Your task to perform on an android device: When is my next meeting? Image 0: 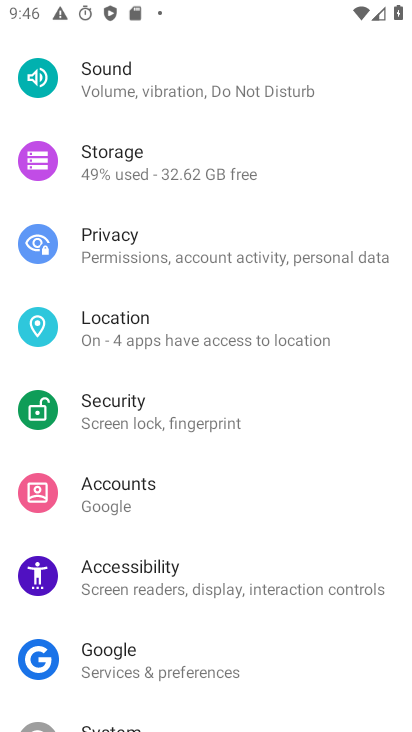
Step 0: press home button
Your task to perform on an android device: When is my next meeting? Image 1: 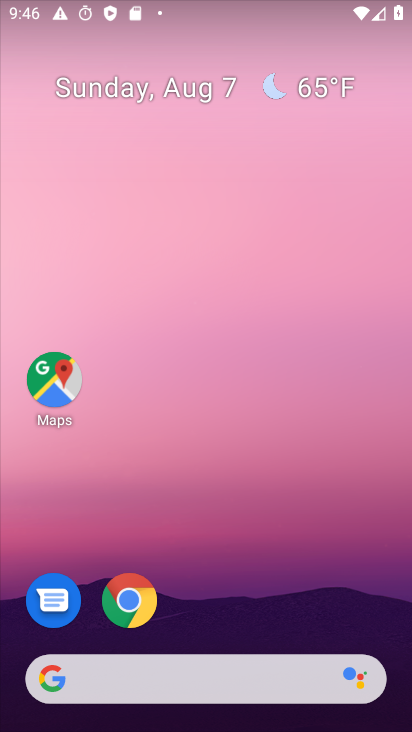
Step 1: drag from (241, 598) to (296, 168)
Your task to perform on an android device: When is my next meeting? Image 2: 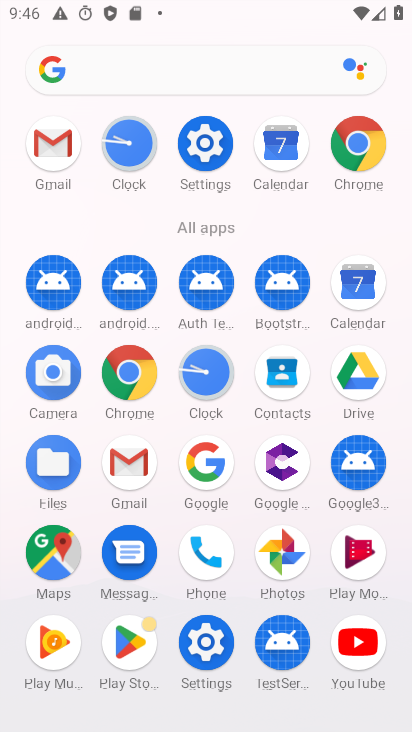
Step 2: drag from (198, 557) to (222, 158)
Your task to perform on an android device: When is my next meeting? Image 3: 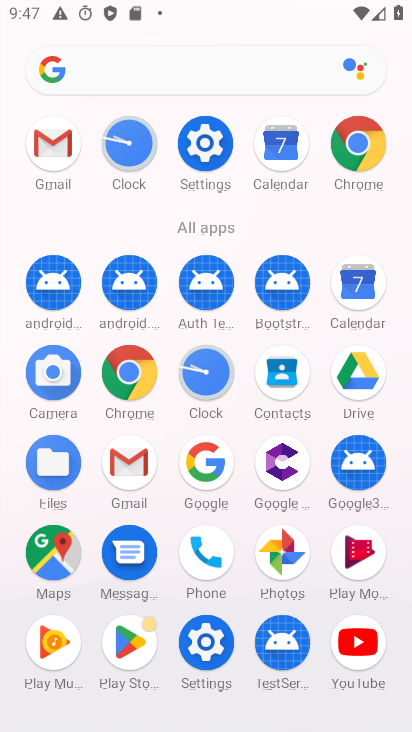
Step 3: click (358, 301)
Your task to perform on an android device: When is my next meeting? Image 4: 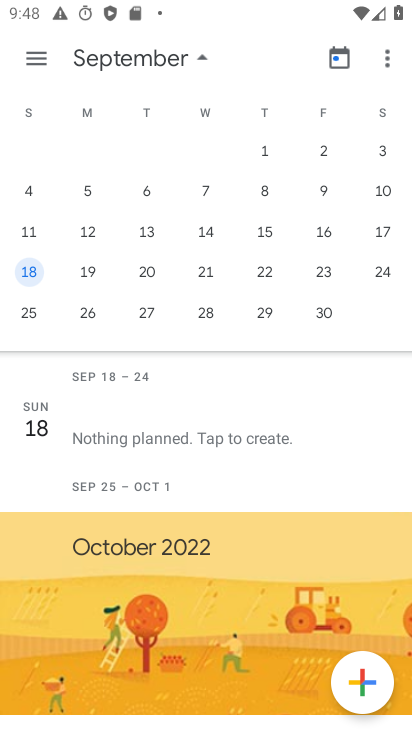
Step 4: click (40, 61)
Your task to perform on an android device: When is my next meeting? Image 5: 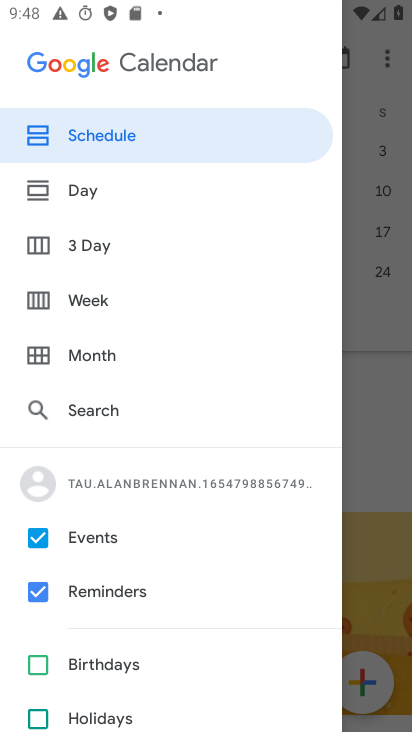
Step 5: click (381, 320)
Your task to perform on an android device: When is my next meeting? Image 6: 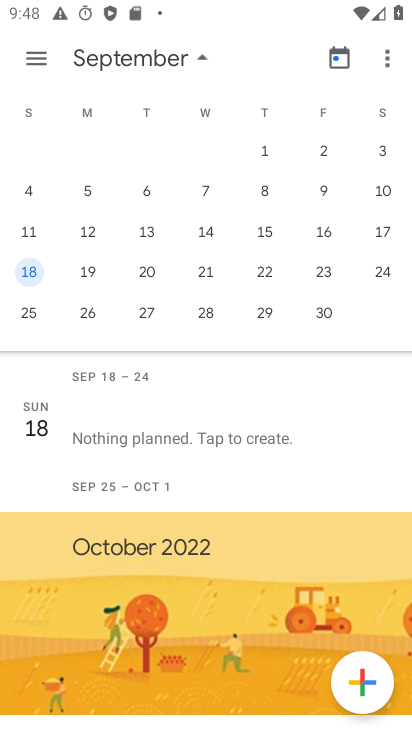
Step 6: drag from (92, 259) to (410, 325)
Your task to perform on an android device: When is my next meeting? Image 7: 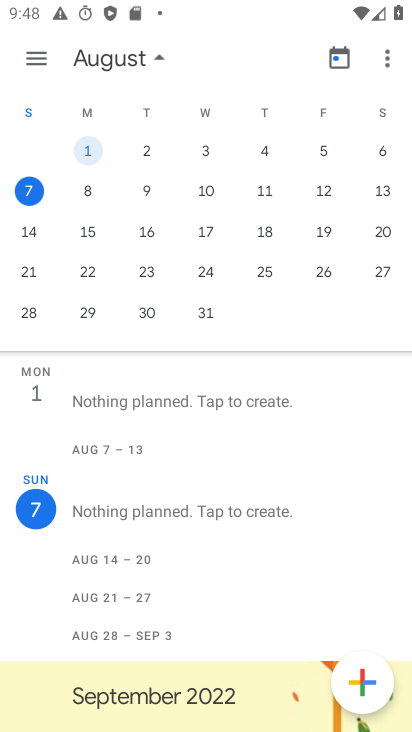
Step 7: click (33, 194)
Your task to perform on an android device: When is my next meeting? Image 8: 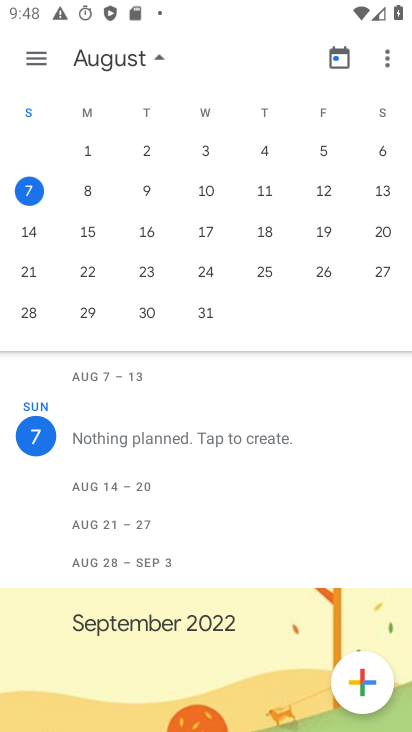
Step 8: task complete